Your task to perform on an android device: turn off translation in the chrome app Image 0: 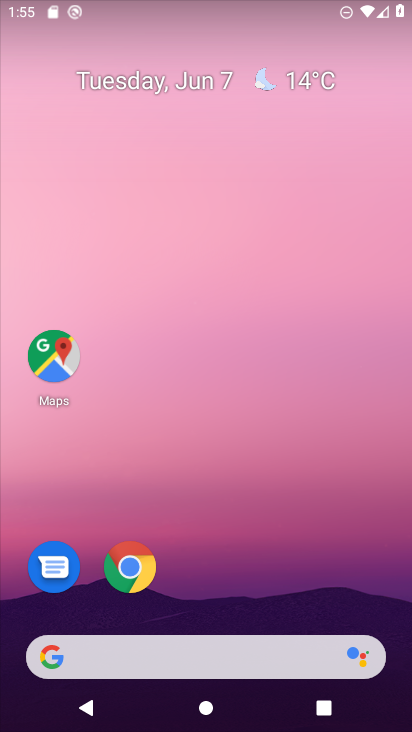
Step 0: drag from (285, 604) to (255, 190)
Your task to perform on an android device: turn off translation in the chrome app Image 1: 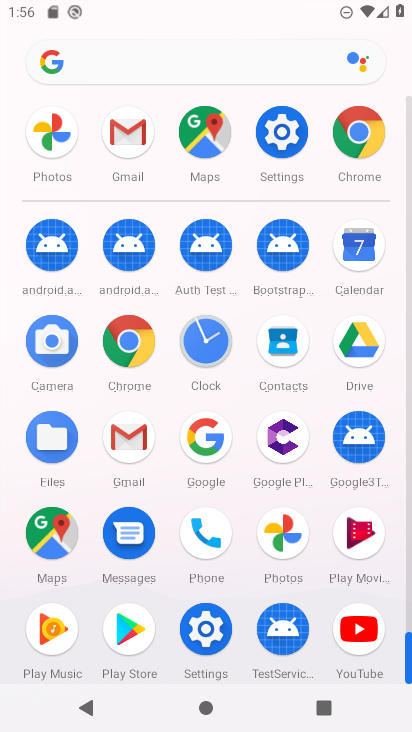
Step 1: click (363, 138)
Your task to perform on an android device: turn off translation in the chrome app Image 2: 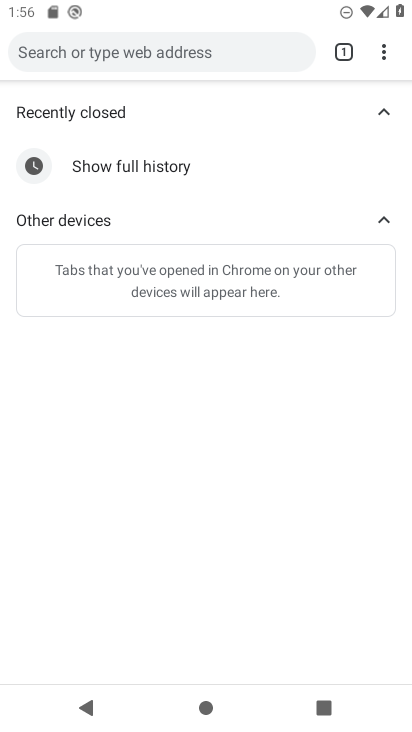
Step 2: drag from (380, 51) to (202, 441)
Your task to perform on an android device: turn off translation in the chrome app Image 3: 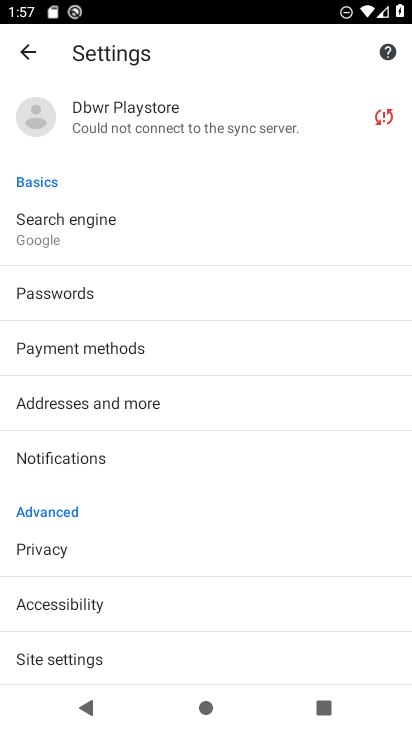
Step 3: drag from (154, 620) to (106, 200)
Your task to perform on an android device: turn off translation in the chrome app Image 4: 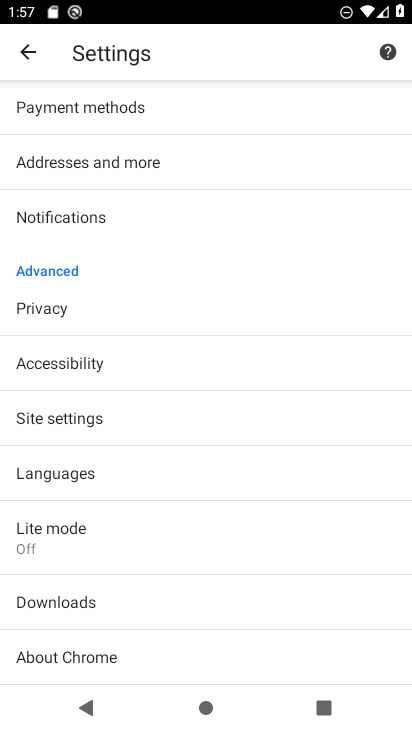
Step 4: click (61, 472)
Your task to perform on an android device: turn off translation in the chrome app Image 5: 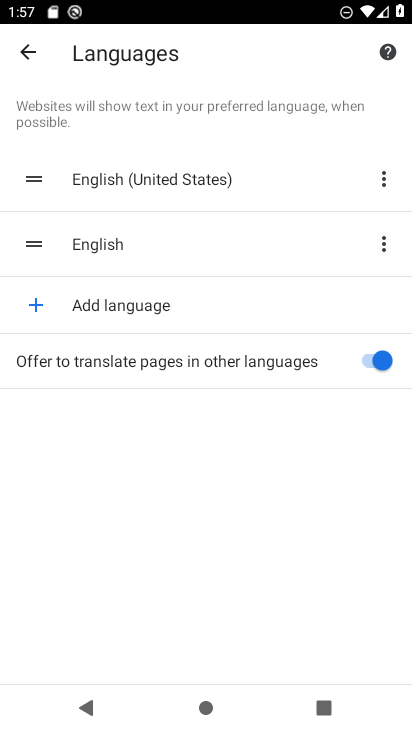
Step 5: click (361, 346)
Your task to perform on an android device: turn off translation in the chrome app Image 6: 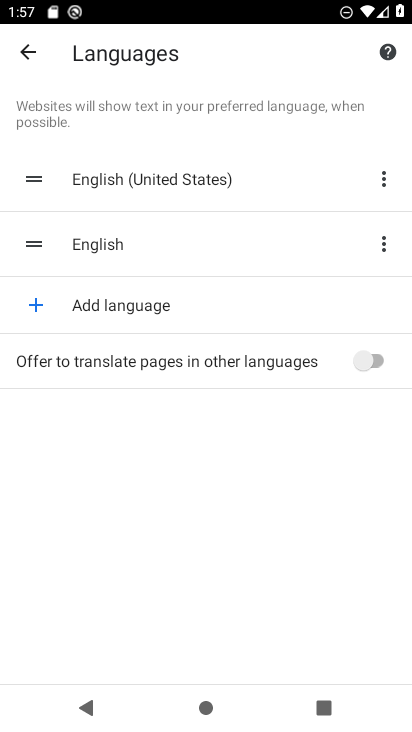
Step 6: task complete